Your task to perform on an android device: open a bookmark in the chrome app Image 0: 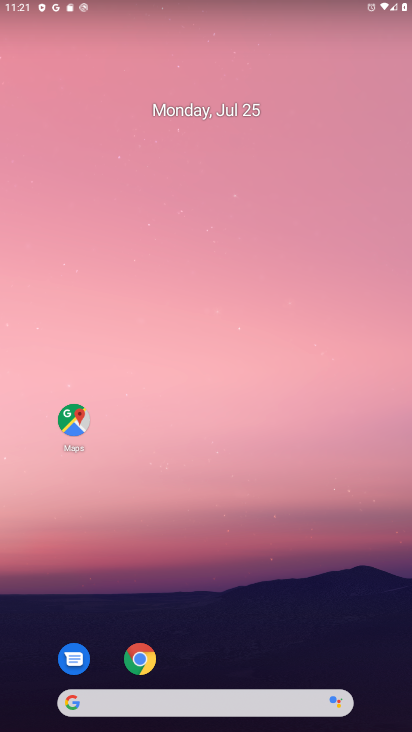
Step 0: click (137, 657)
Your task to perform on an android device: open a bookmark in the chrome app Image 1: 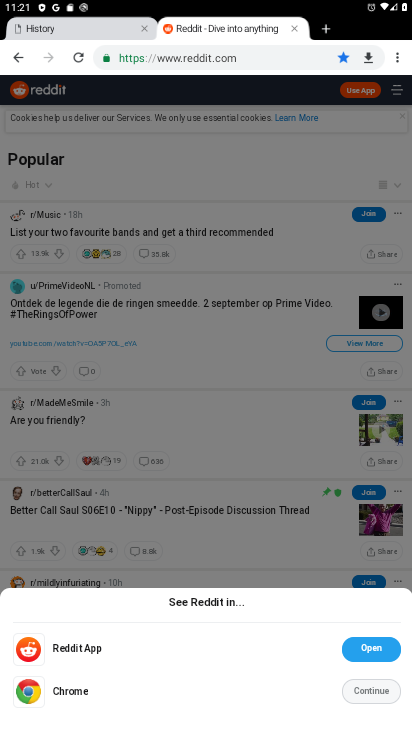
Step 1: click (396, 55)
Your task to perform on an android device: open a bookmark in the chrome app Image 2: 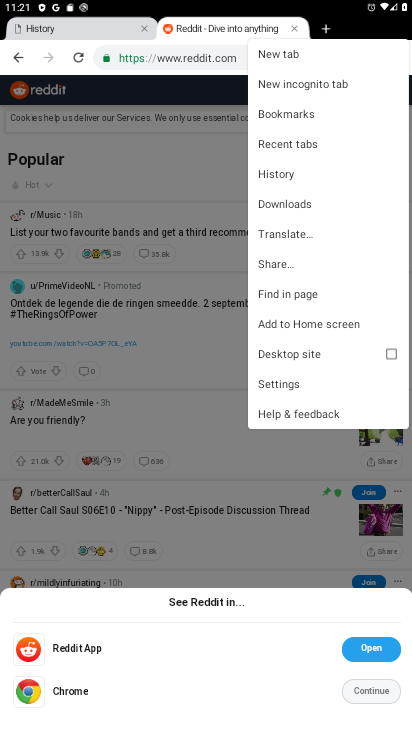
Step 2: click (305, 117)
Your task to perform on an android device: open a bookmark in the chrome app Image 3: 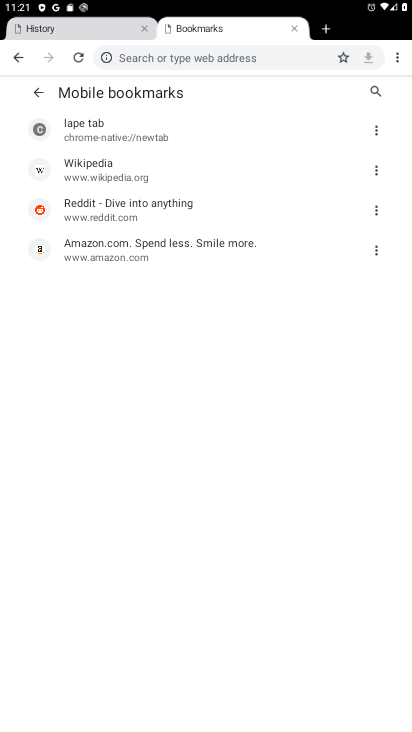
Step 3: task complete